Your task to perform on an android device: stop showing notifications on the lock screen Image 0: 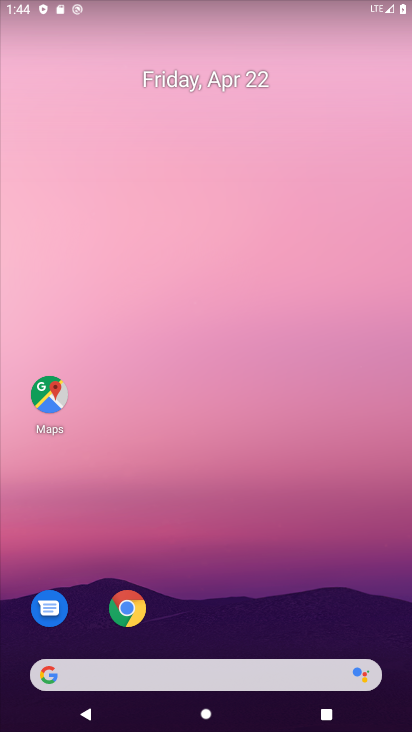
Step 0: drag from (247, 659) to (389, 154)
Your task to perform on an android device: stop showing notifications on the lock screen Image 1: 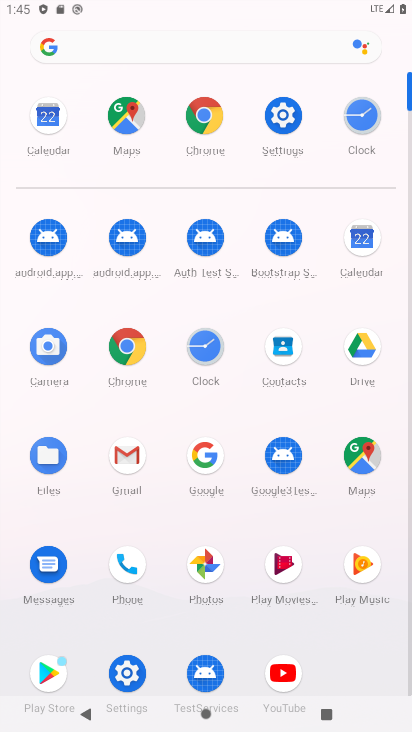
Step 1: click (129, 655)
Your task to perform on an android device: stop showing notifications on the lock screen Image 2: 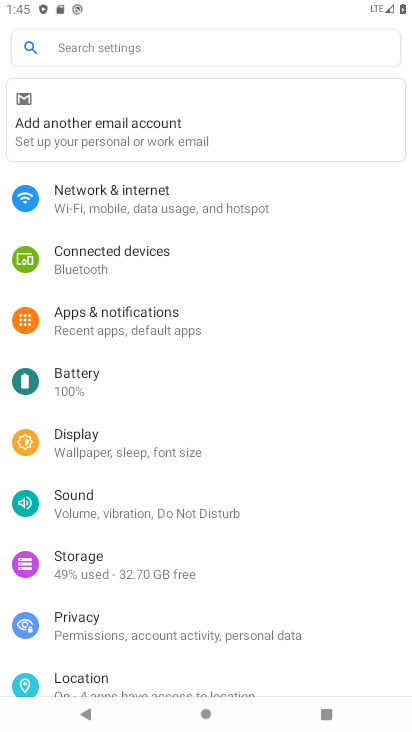
Step 2: click (143, 59)
Your task to perform on an android device: stop showing notifications on the lock screen Image 3: 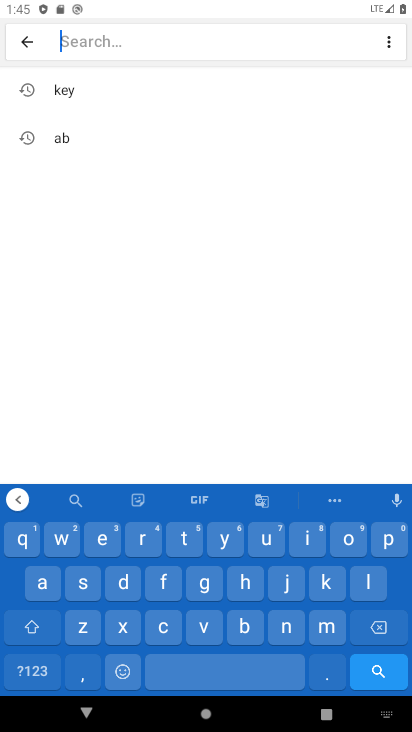
Step 3: click (293, 631)
Your task to perform on an android device: stop showing notifications on the lock screen Image 4: 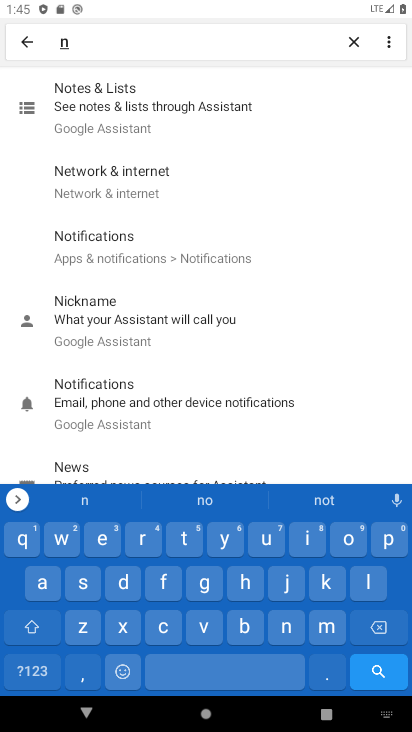
Step 4: click (346, 537)
Your task to perform on an android device: stop showing notifications on the lock screen Image 5: 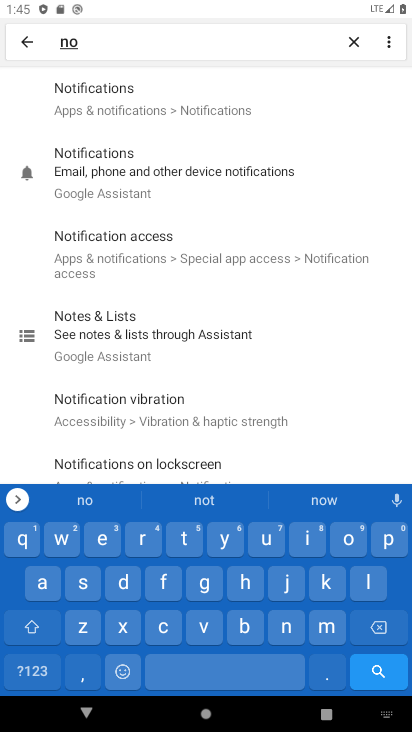
Step 5: click (137, 107)
Your task to perform on an android device: stop showing notifications on the lock screen Image 6: 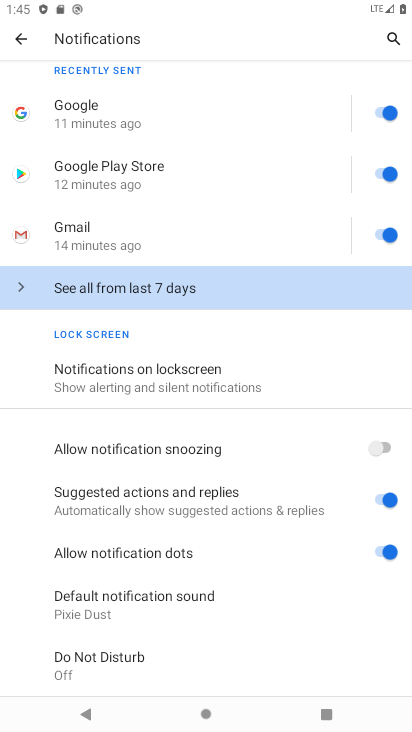
Step 6: click (130, 370)
Your task to perform on an android device: stop showing notifications on the lock screen Image 7: 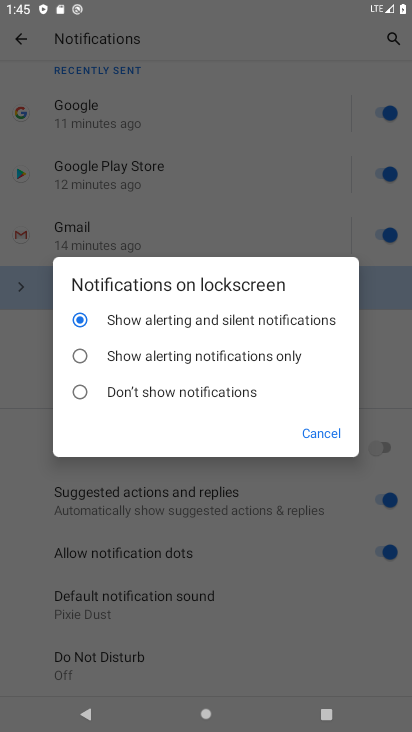
Step 7: click (113, 391)
Your task to perform on an android device: stop showing notifications on the lock screen Image 8: 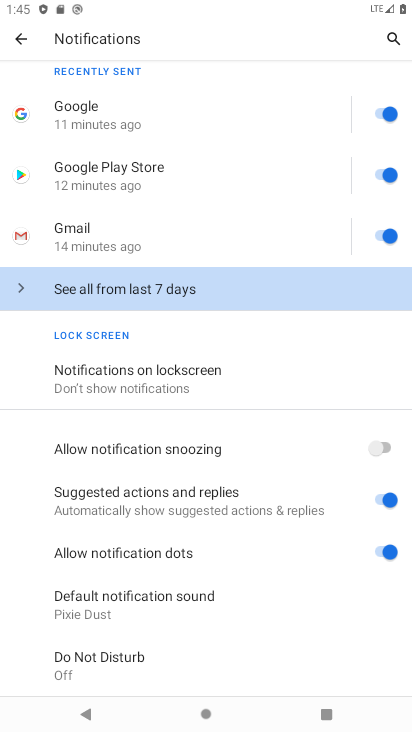
Step 8: task complete